Your task to perform on an android device: toggle priority inbox in the gmail app Image 0: 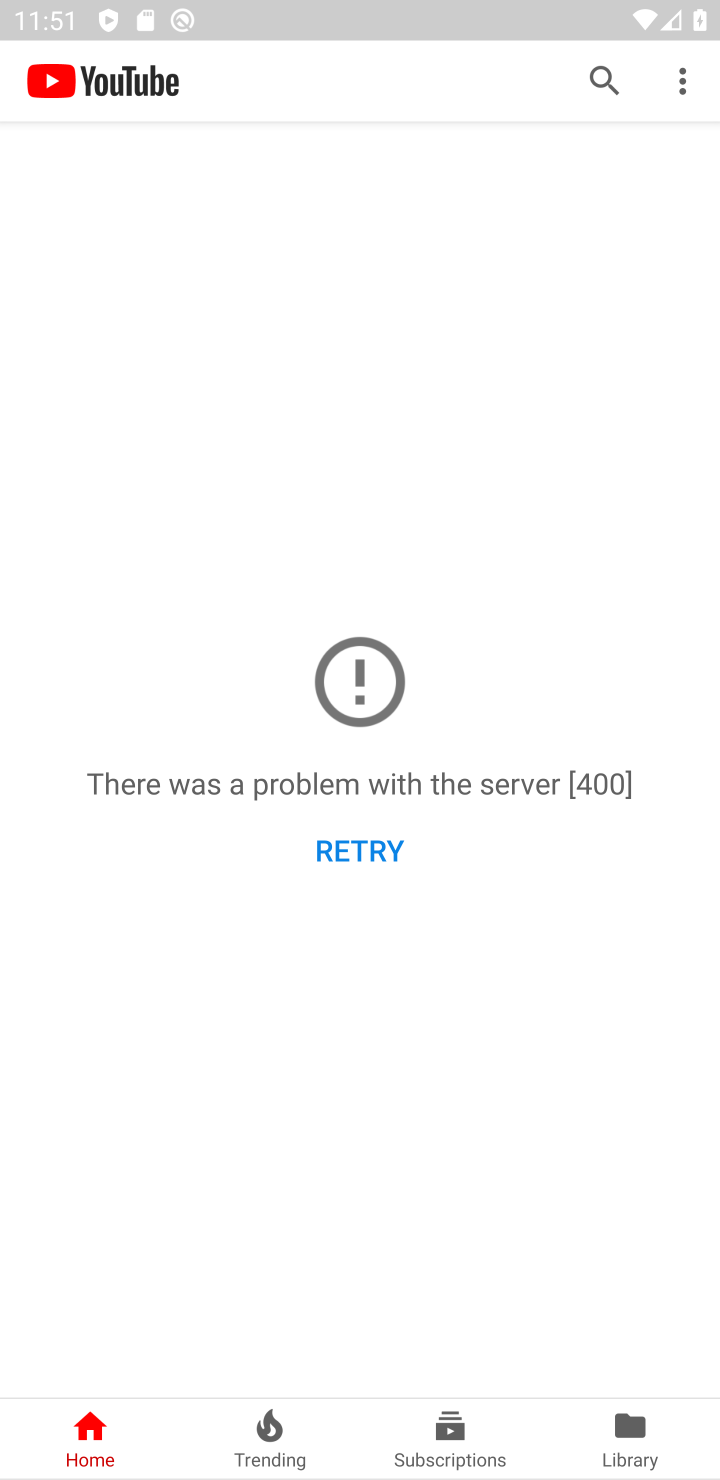
Step 0: task complete